Your task to perform on an android device: check data usage Image 0: 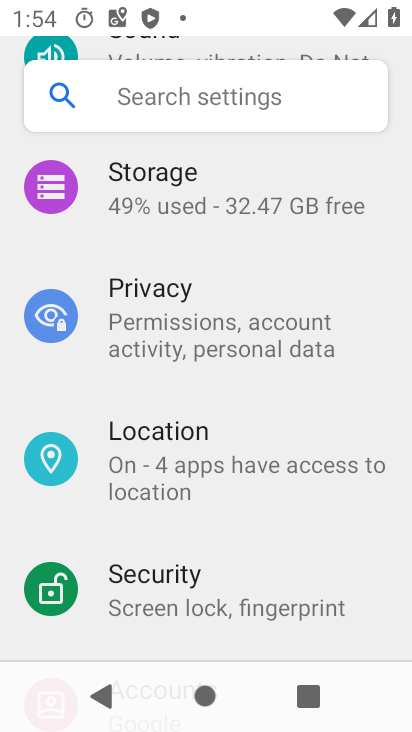
Step 0: drag from (235, 318) to (189, 700)
Your task to perform on an android device: check data usage Image 1: 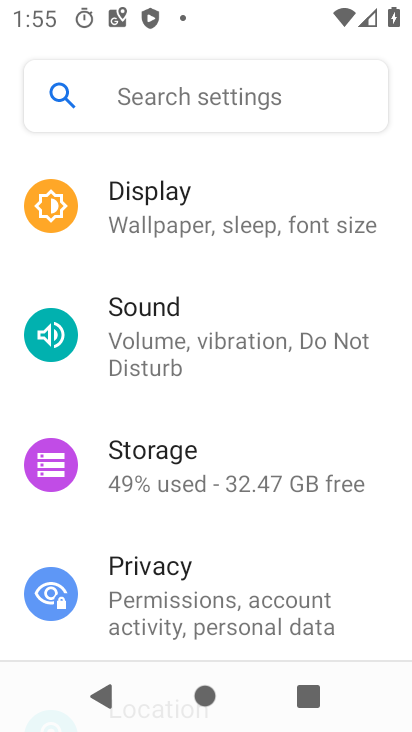
Step 1: drag from (231, 228) to (184, 646)
Your task to perform on an android device: check data usage Image 2: 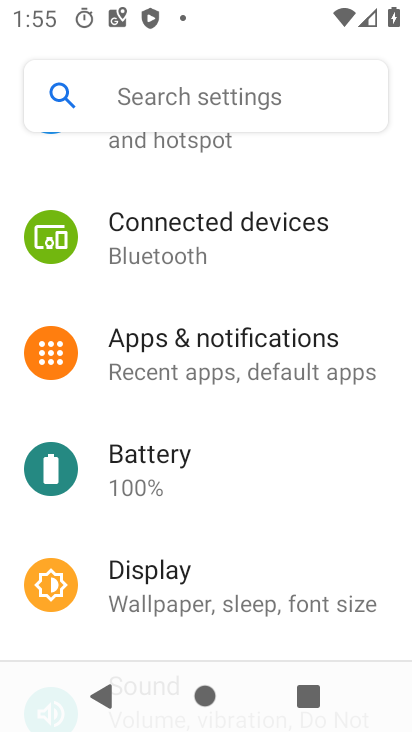
Step 2: drag from (262, 353) to (211, 731)
Your task to perform on an android device: check data usage Image 3: 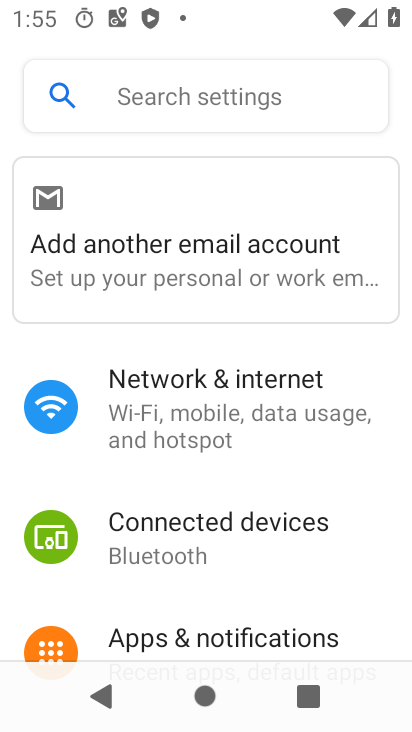
Step 3: click (243, 425)
Your task to perform on an android device: check data usage Image 4: 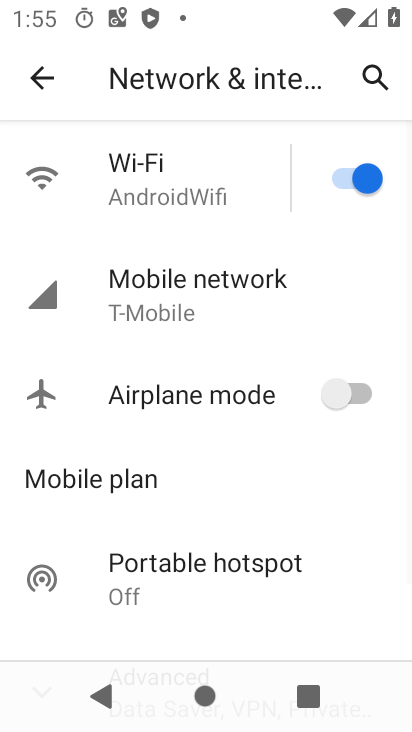
Step 4: click (186, 291)
Your task to perform on an android device: check data usage Image 5: 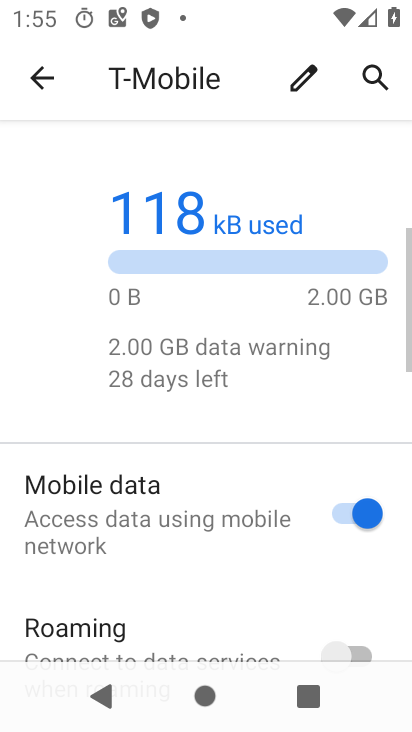
Step 5: drag from (157, 612) to (278, 167)
Your task to perform on an android device: check data usage Image 6: 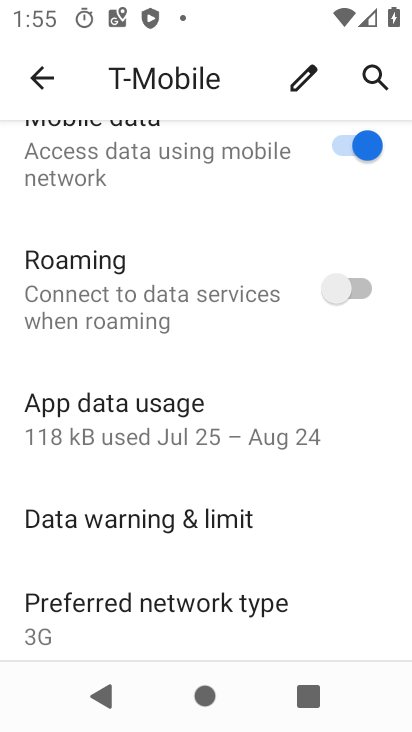
Step 6: click (186, 428)
Your task to perform on an android device: check data usage Image 7: 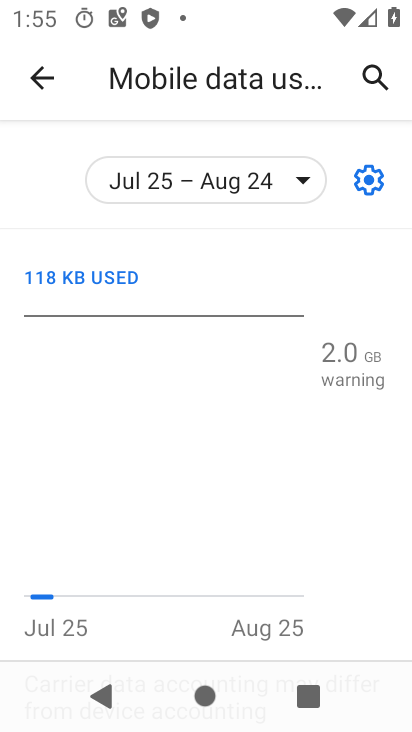
Step 7: task complete